Your task to perform on an android device: toggle priority inbox in the gmail app Image 0: 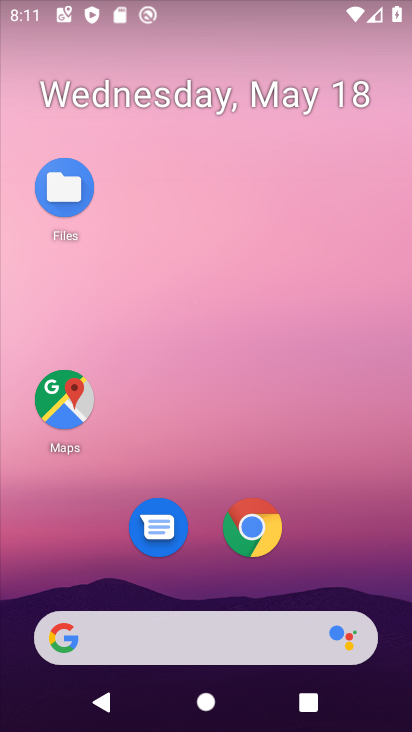
Step 0: drag from (275, 707) to (175, 190)
Your task to perform on an android device: toggle priority inbox in the gmail app Image 1: 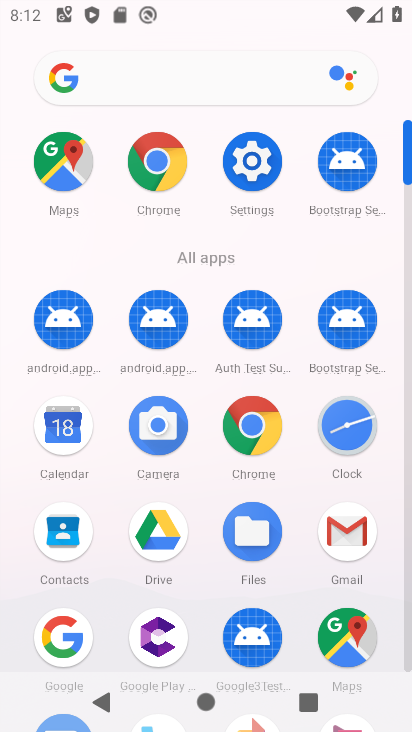
Step 1: click (338, 530)
Your task to perform on an android device: toggle priority inbox in the gmail app Image 2: 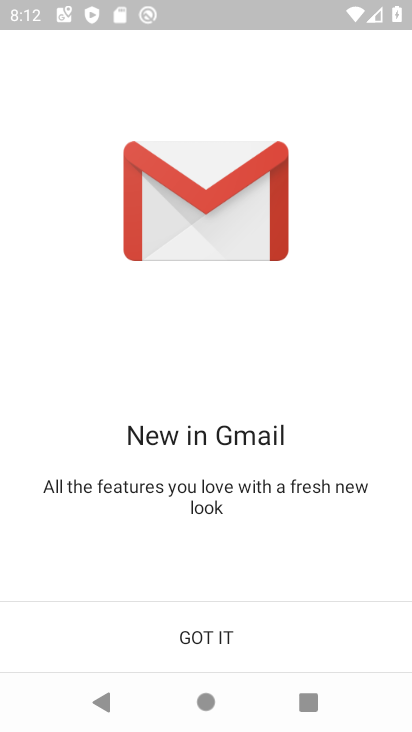
Step 2: click (217, 638)
Your task to perform on an android device: toggle priority inbox in the gmail app Image 3: 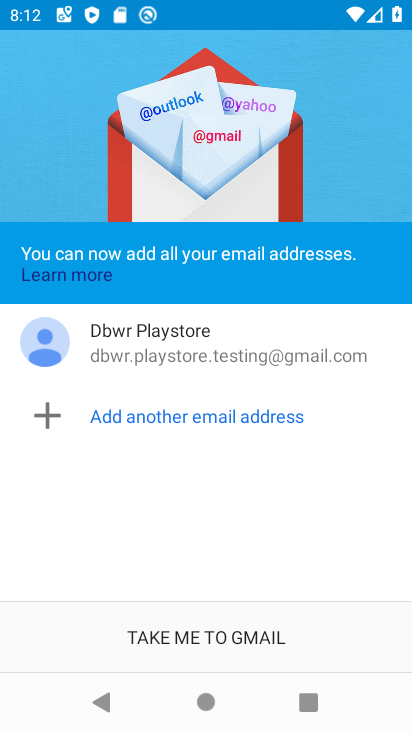
Step 3: click (217, 627)
Your task to perform on an android device: toggle priority inbox in the gmail app Image 4: 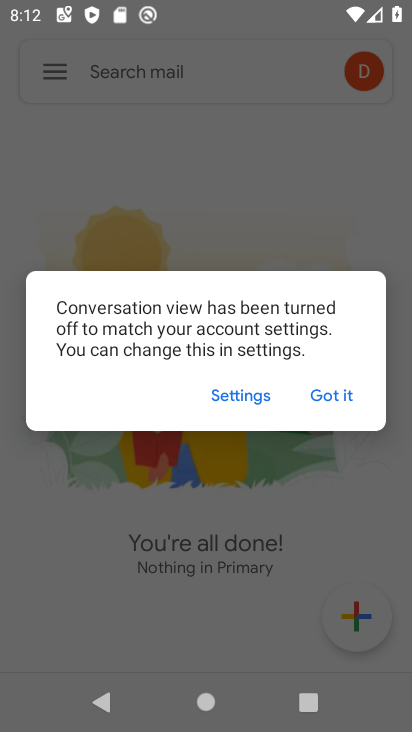
Step 4: click (235, 394)
Your task to perform on an android device: toggle priority inbox in the gmail app Image 5: 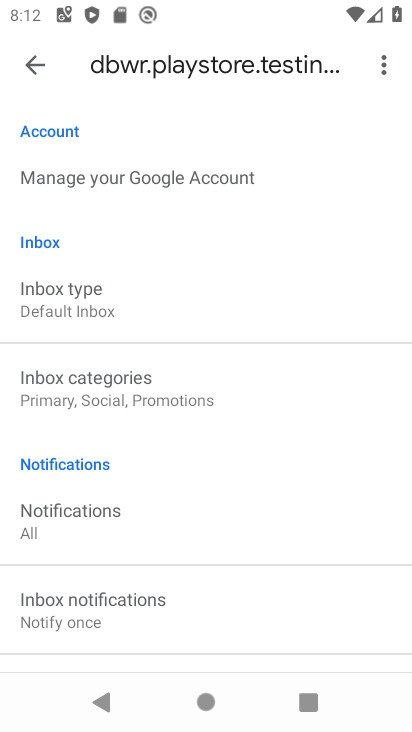
Step 5: click (60, 276)
Your task to perform on an android device: toggle priority inbox in the gmail app Image 6: 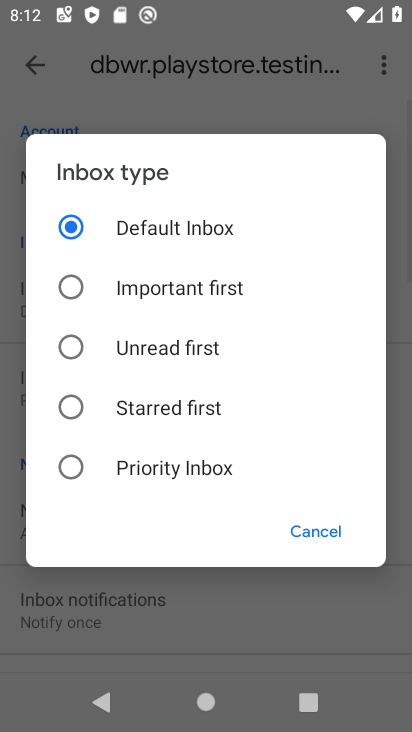
Step 6: click (77, 466)
Your task to perform on an android device: toggle priority inbox in the gmail app Image 7: 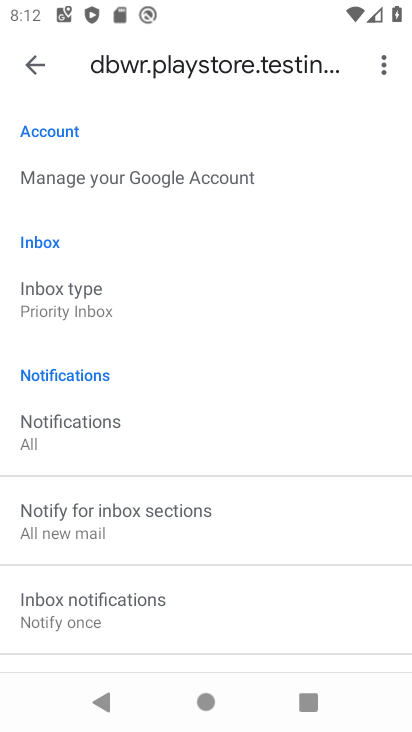
Step 7: task complete